Your task to perform on an android device: move a message to another label in the gmail app Image 0: 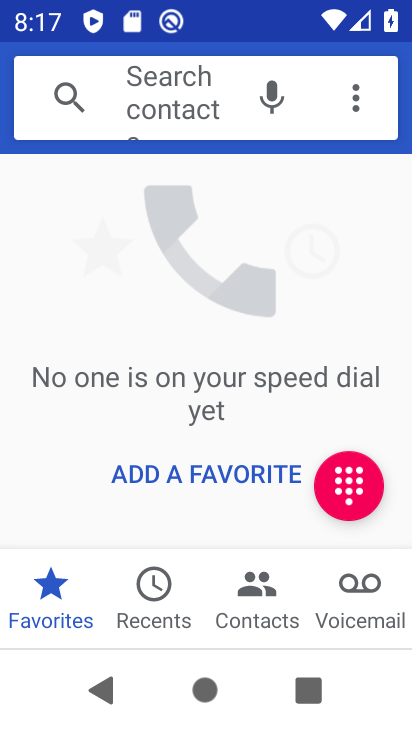
Step 0: press back button
Your task to perform on an android device: move a message to another label in the gmail app Image 1: 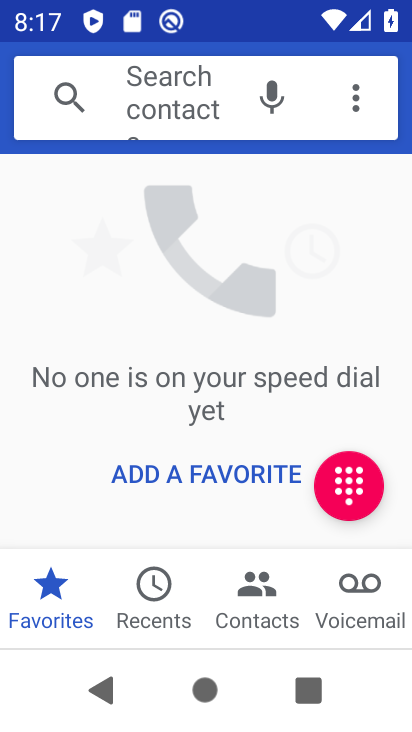
Step 1: press back button
Your task to perform on an android device: move a message to another label in the gmail app Image 2: 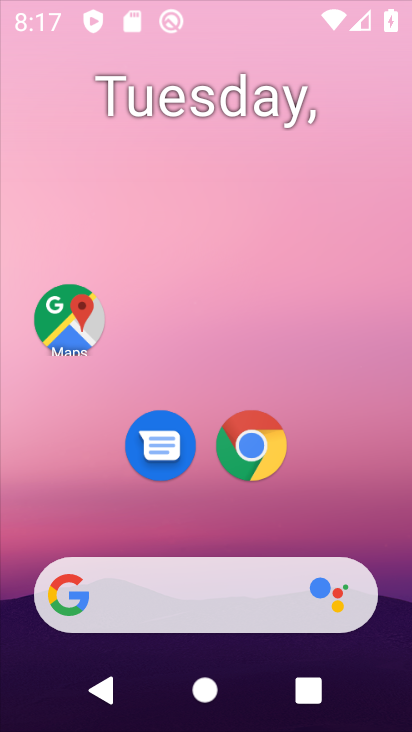
Step 2: press back button
Your task to perform on an android device: move a message to another label in the gmail app Image 3: 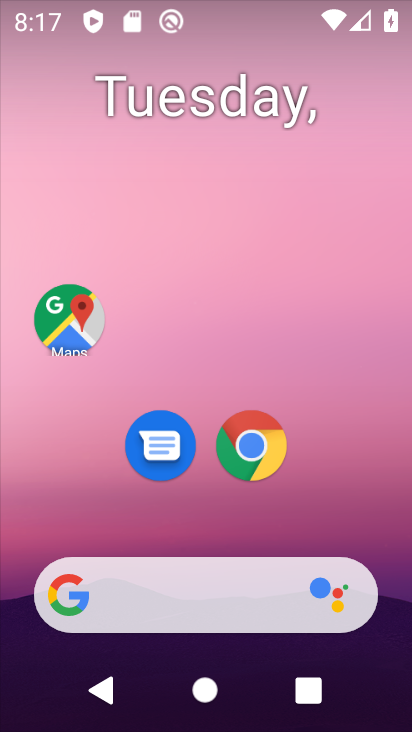
Step 3: press back button
Your task to perform on an android device: move a message to another label in the gmail app Image 4: 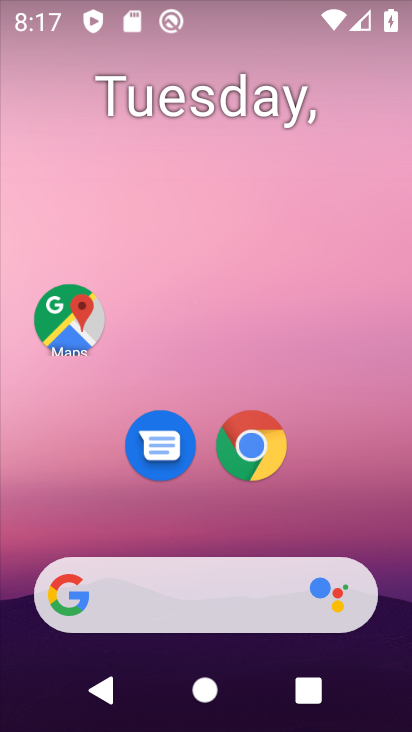
Step 4: drag from (373, 595) to (246, 216)
Your task to perform on an android device: move a message to another label in the gmail app Image 5: 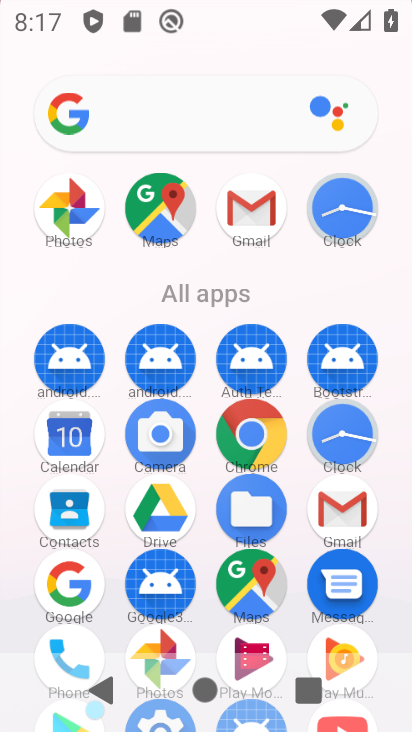
Step 5: drag from (257, 340) to (230, 245)
Your task to perform on an android device: move a message to another label in the gmail app Image 6: 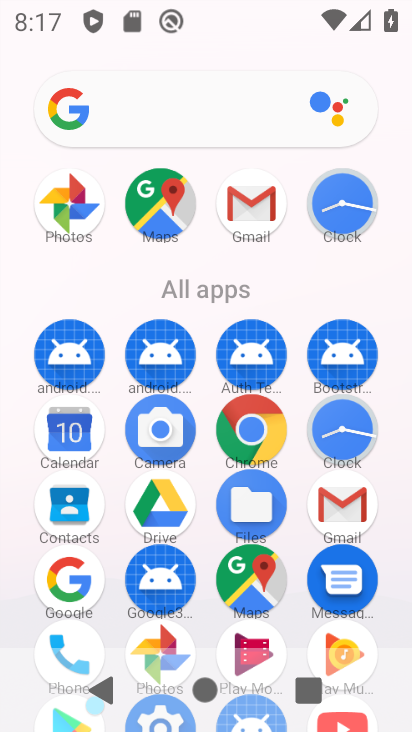
Step 6: click (336, 509)
Your task to perform on an android device: move a message to another label in the gmail app Image 7: 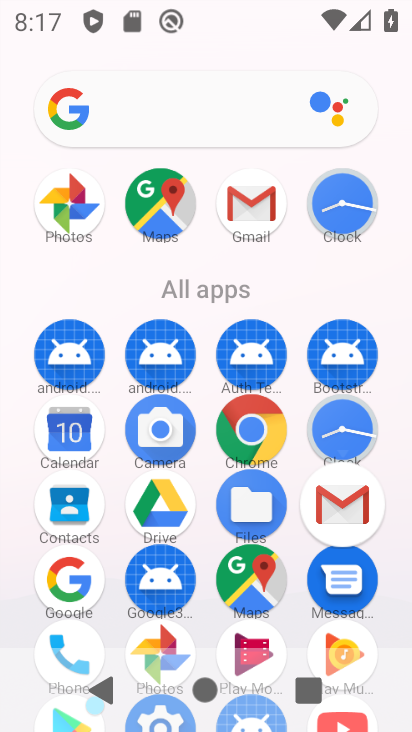
Step 7: click (337, 507)
Your task to perform on an android device: move a message to another label in the gmail app Image 8: 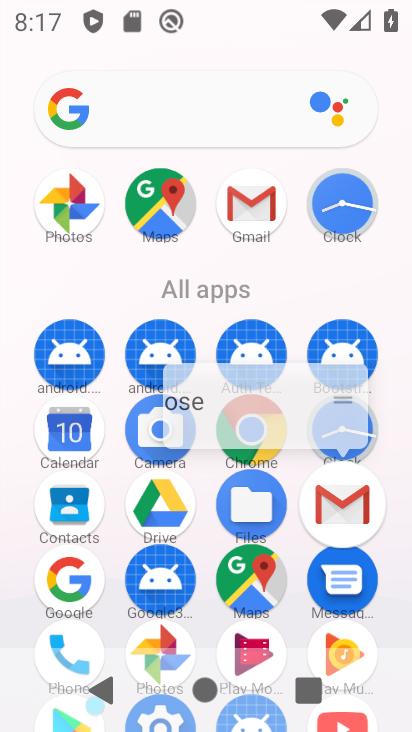
Step 8: click (337, 507)
Your task to perform on an android device: move a message to another label in the gmail app Image 9: 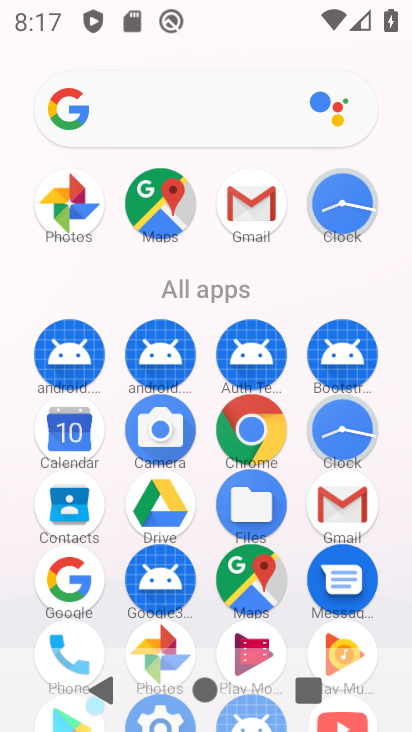
Step 9: click (330, 502)
Your task to perform on an android device: move a message to another label in the gmail app Image 10: 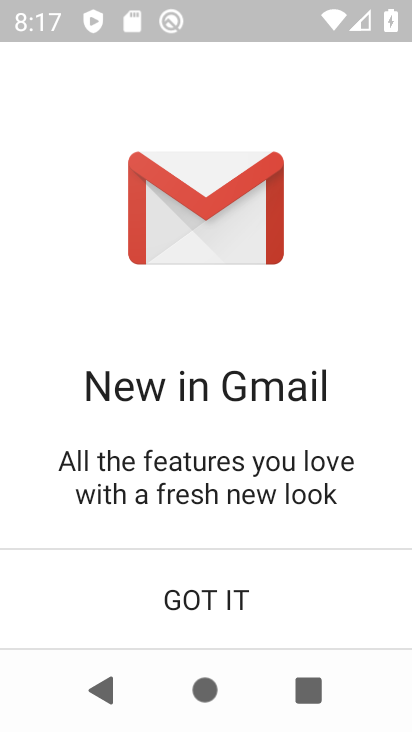
Step 10: click (216, 606)
Your task to perform on an android device: move a message to another label in the gmail app Image 11: 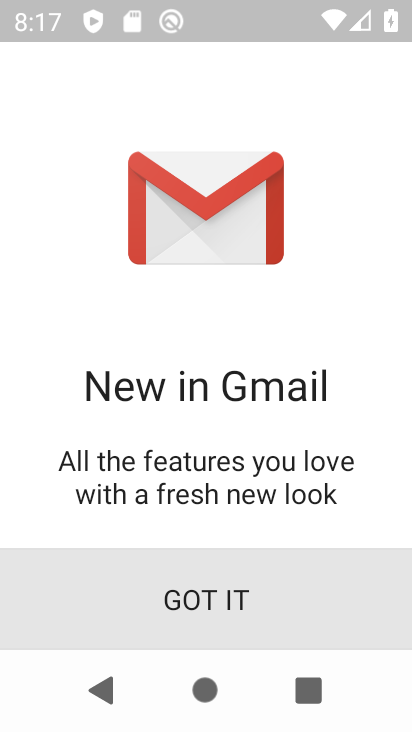
Step 11: click (216, 606)
Your task to perform on an android device: move a message to another label in the gmail app Image 12: 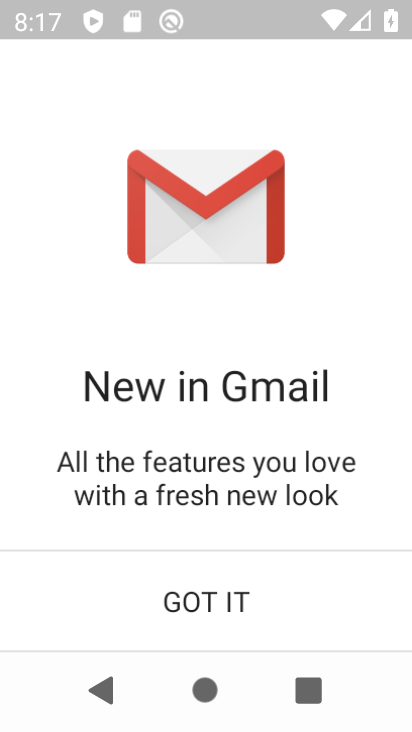
Step 12: click (216, 606)
Your task to perform on an android device: move a message to another label in the gmail app Image 13: 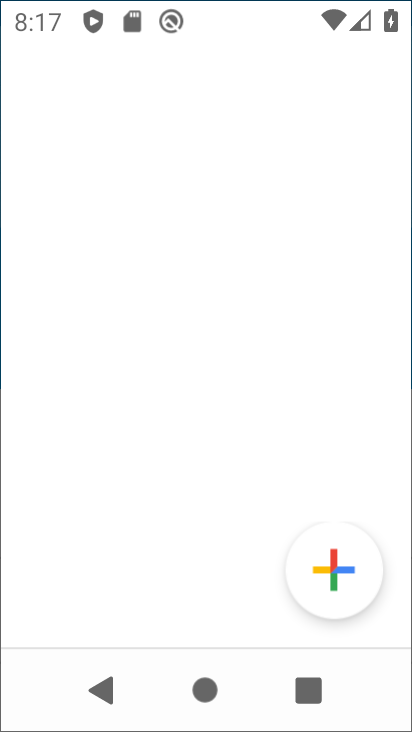
Step 13: click (232, 601)
Your task to perform on an android device: move a message to another label in the gmail app Image 14: 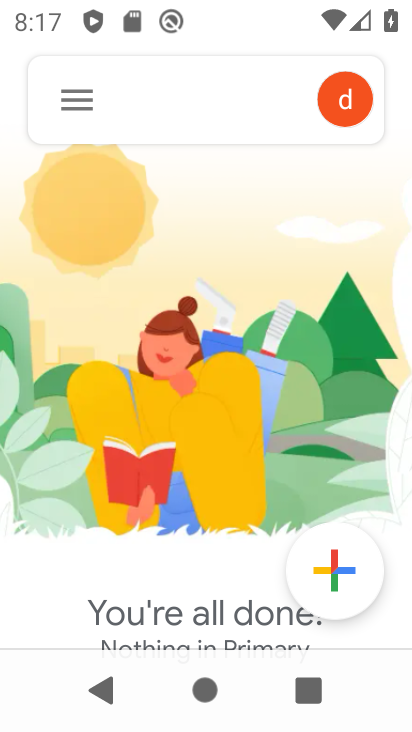
Step 14: click (73, 95)
Your task to perform on an android device: move a message to another label in the gmail app Image 15: 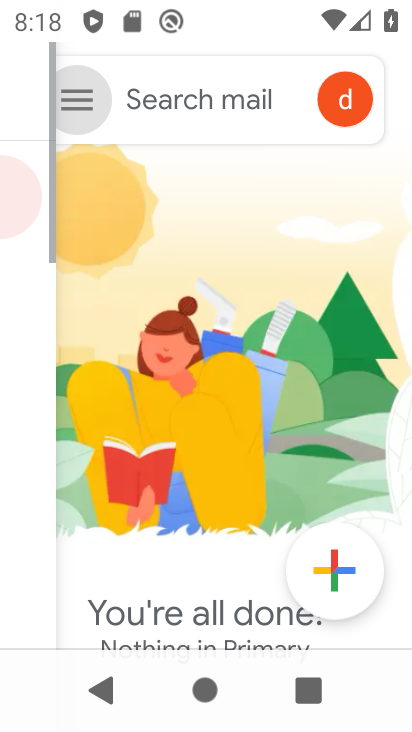
Step 15: click (73, 95)
Your task to perform on an android device: move a message to another label in the gmail app Image 16: 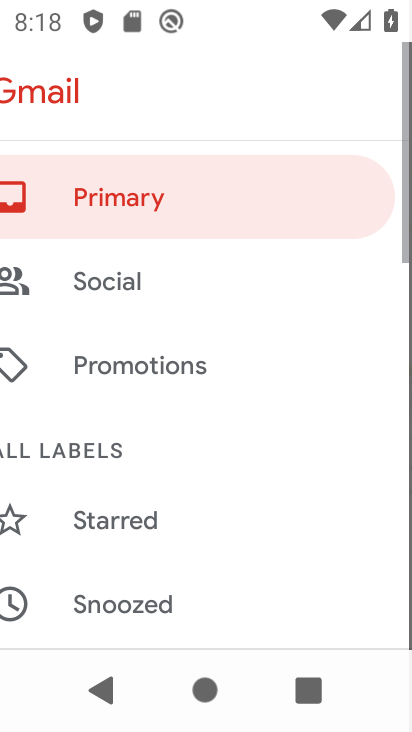
Step 16: click (73, 95)
Your task to perform on an android device: move a message to another label in the gmail app Image 17: 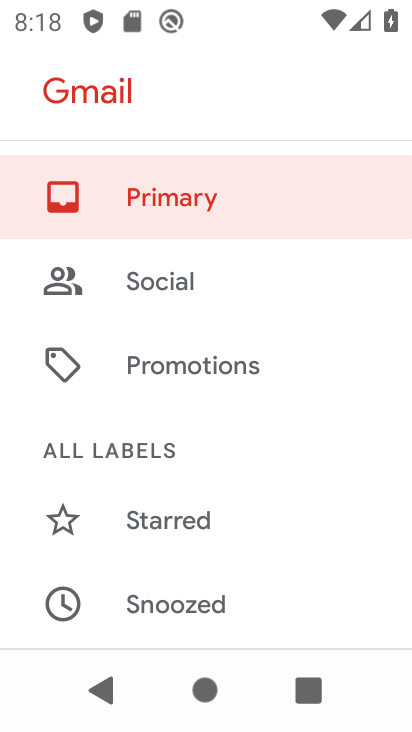
Step 17: drag from (205, 576) to (126, 91)
Your task to perform on an android device: move a message to another label in the gmail app Image 18: 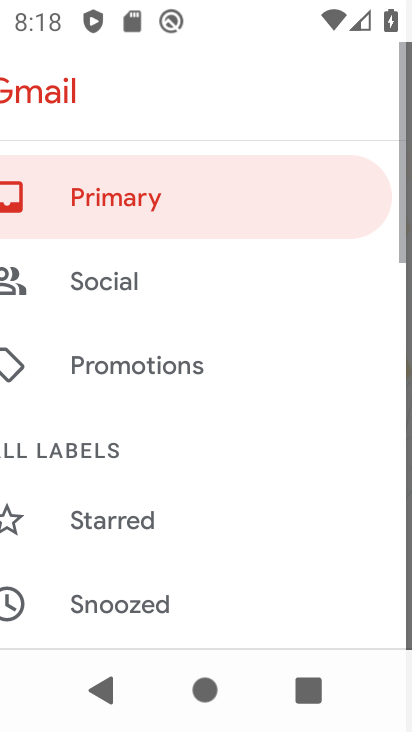
Step 18: drag from (179, 447) to (126, 127)
Your task to perform on an android device: move a message to another label in the gmail app Image 19: 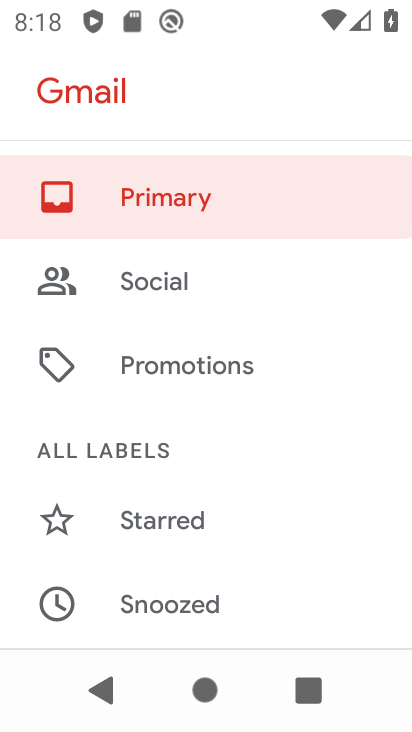
Step 19: drag from (187, 436) to (180, 193)
Your task to perform on an android device: move a message to another label in the gmail app Image 20: 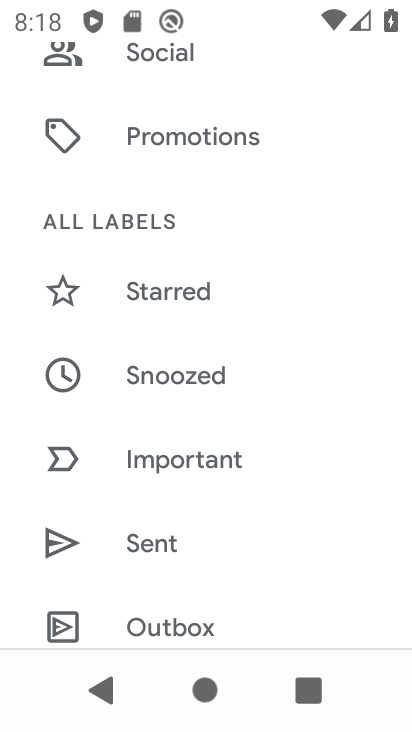
Step 20: drag from (191, 487) to (220, 216)
Your task to perform on an android device: move a message to another label in the gmail app Image 21: 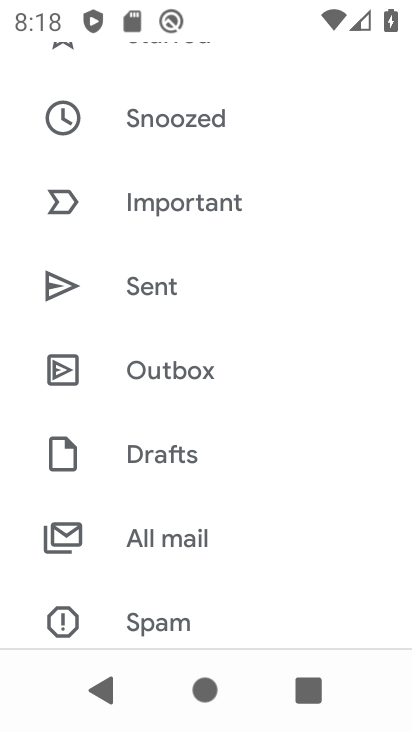
Step 21: drag from (213, 342) to (213, 96)
Your task to perform on an android device: move a message to another label in the gmail app Image 22: 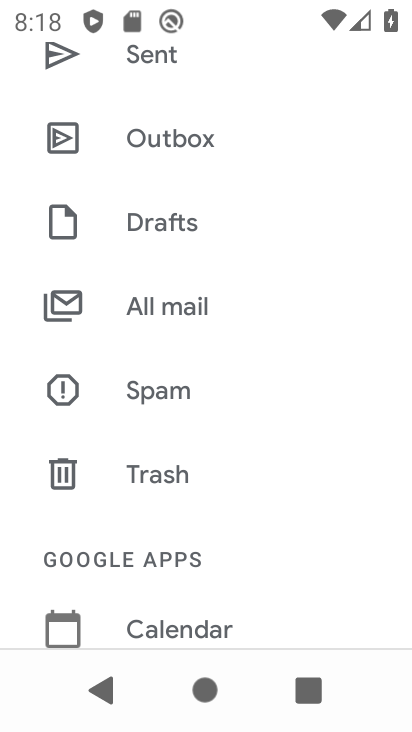
Step 22: click (166, 306)
Your task to perform on an android device: move a message to another label in the gmail app Image 23: 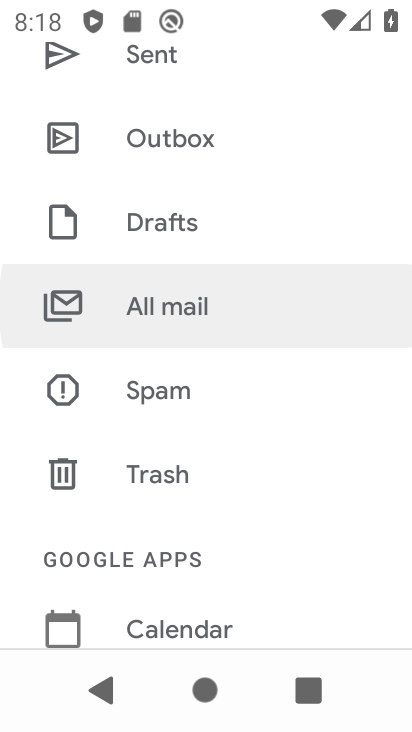
Step 23: click (168, 303)
Your task to perform on an android device: move a message to another label in the gmail app Image 24: 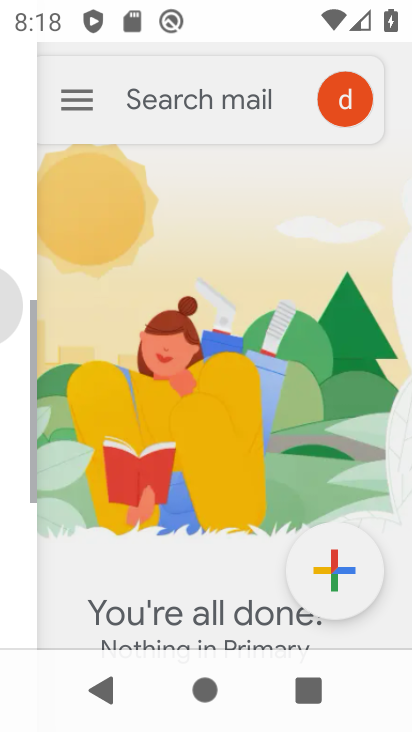
Step 24: click (168, 303)
Your task to perform on an android device: move a message to another label in the gmail app Image 25: 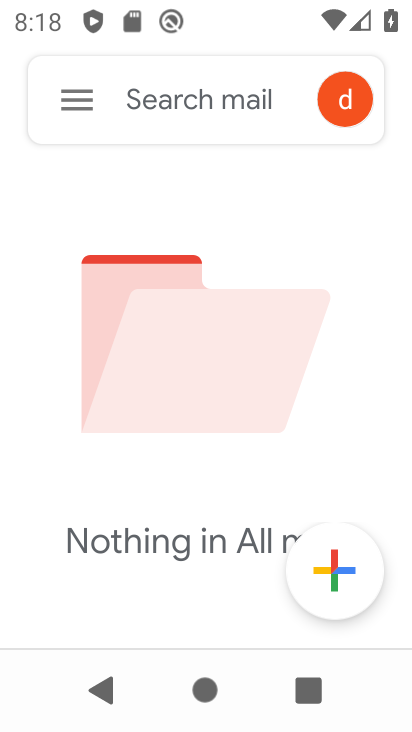
Step 25: task complete